Your task to perform on an android device: Open Chrome and go to settings Image 0: 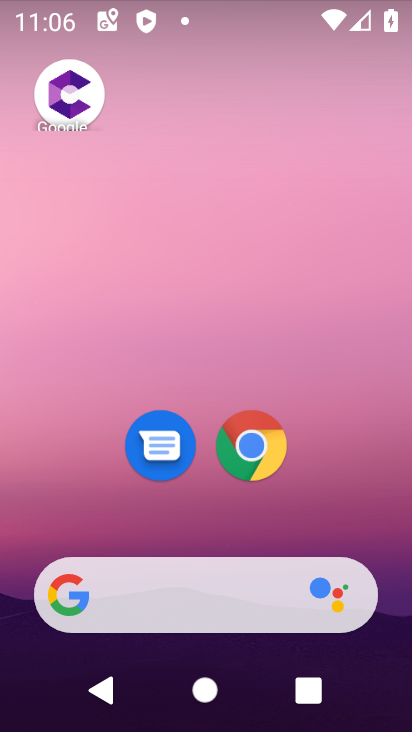
Step 0: click (252, 453)
Your task to perform on an android device: Open Chrome and go to settings Image 1: 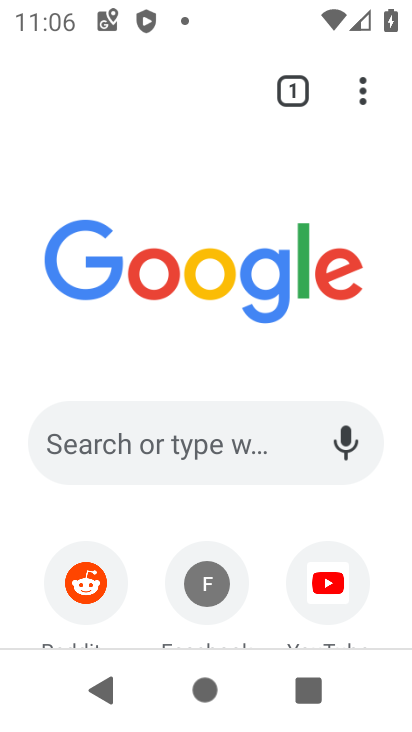
Step 1: click (365, 96)
Your task to perform on an android device: Open Chrome and go to settings Image 2: 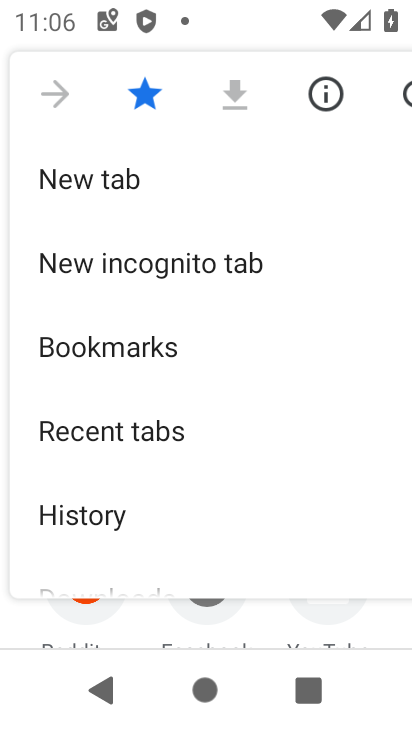
Step 2: drag from (165, 509) to (194, 23)
Your task to perform on an android device: Open Chrome and go to settings Image 3: 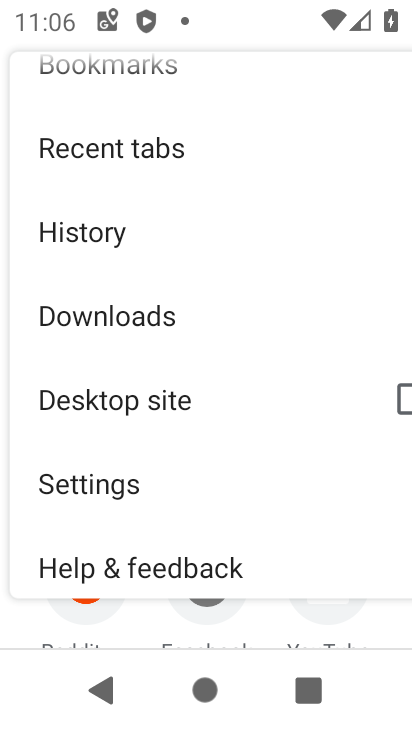
Step 3: click (109, 483)
Your task to perform on an android device: Open Chrome and go to settings Image 4: 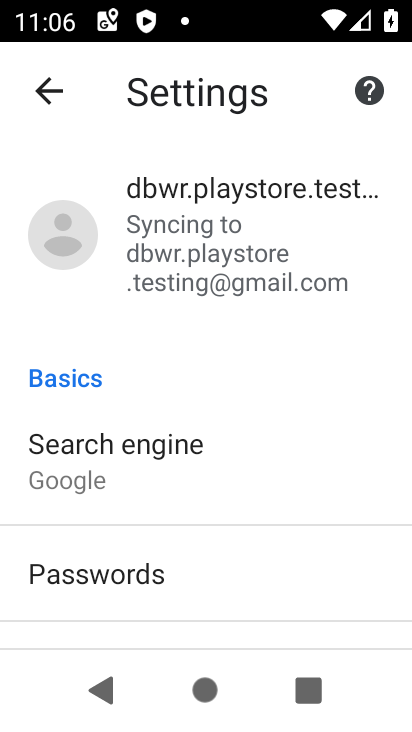
Step 4: task complete